Your task to perform on an android device: Open the calendar and show me this week's events? Image 0: 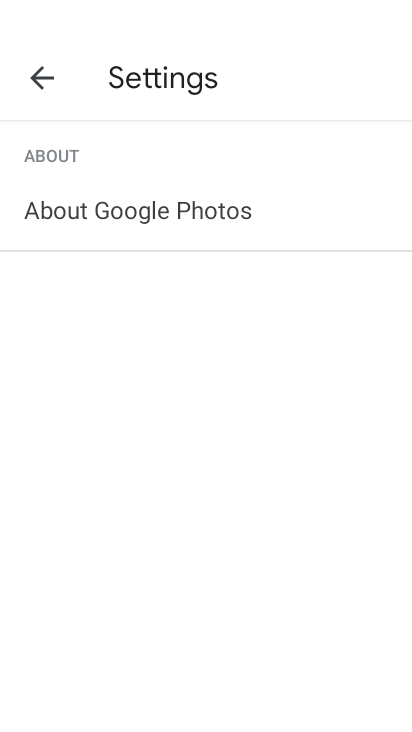
Step 0: press back button
Your task to perform on an android device: Open the calendar and show me this week's events? Image 1: 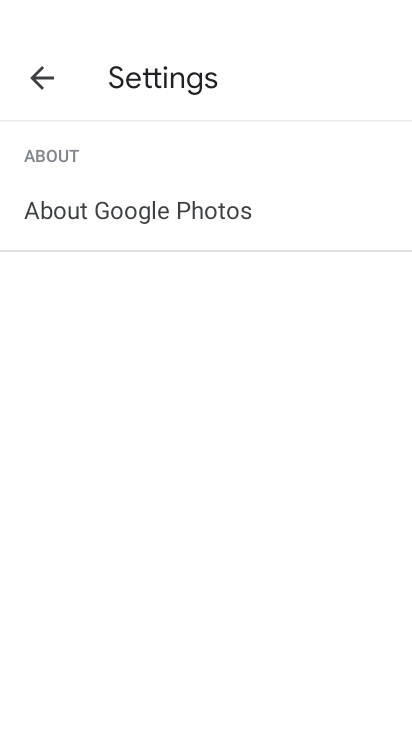
Step 1: press back button
Your task to perform on an android device: Open the calendar and show me this week's events? Image 2: 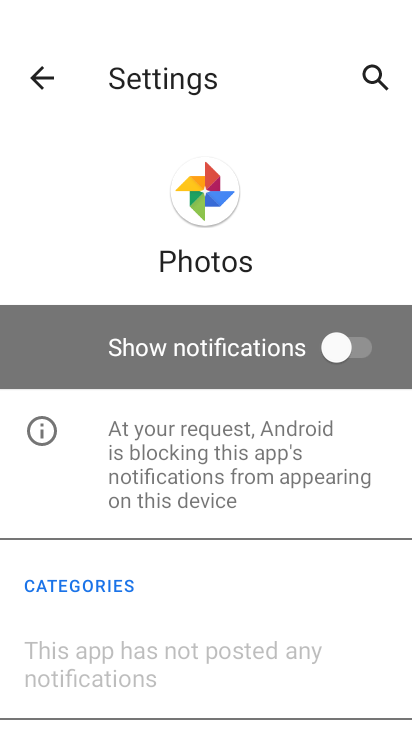
Step 2: press back button
Your task to perform on an android device: Open the calendar and show me this week's events? Image 3: 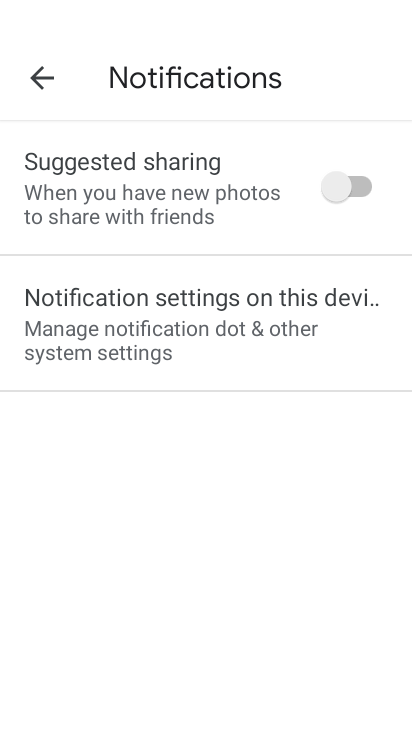
Step 3: press back button
Your task to perform on an android device: Open the calendar and show me this week's events? Image 4: 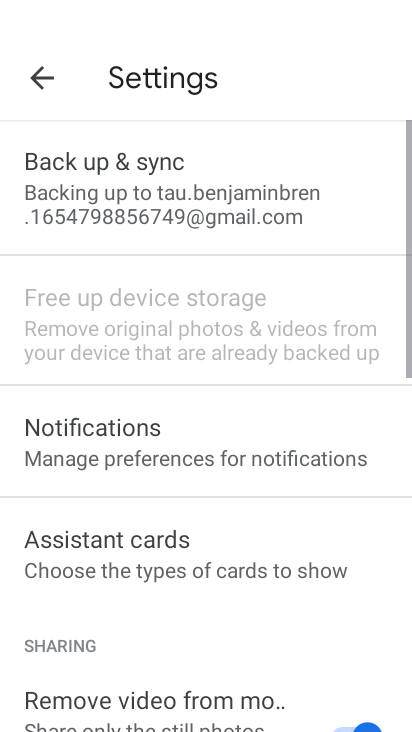
Step 4: press back button
Your task to perform on an android device: Open the calendar and show me this week's events? Image 5: 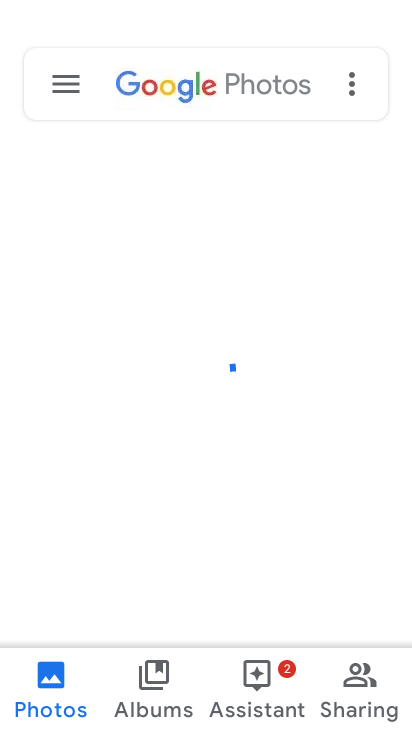
Step 5: press home button
Your task to perform on an android device: Open the calendar and show me this week's events? Image 6: 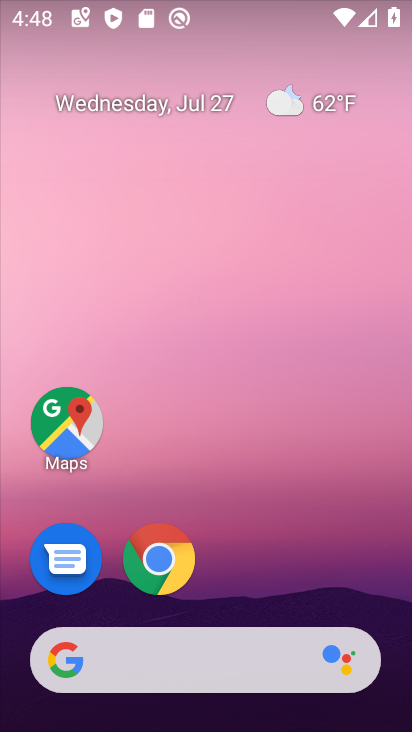
Step 6: drag from (241, 590) to (323, 87)
Your task to perform on an android device: Open the calendar and show me this week's events? Image 7: 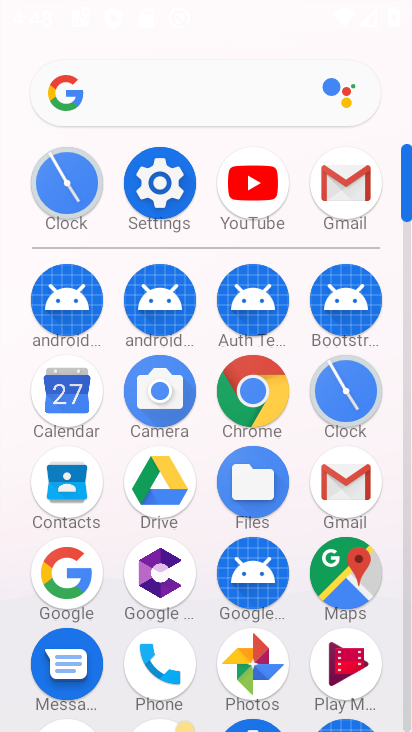
Step 7: click (61, 410)
Your task to perform on an android device: Open the calendar and show me this week's events? Image 8: 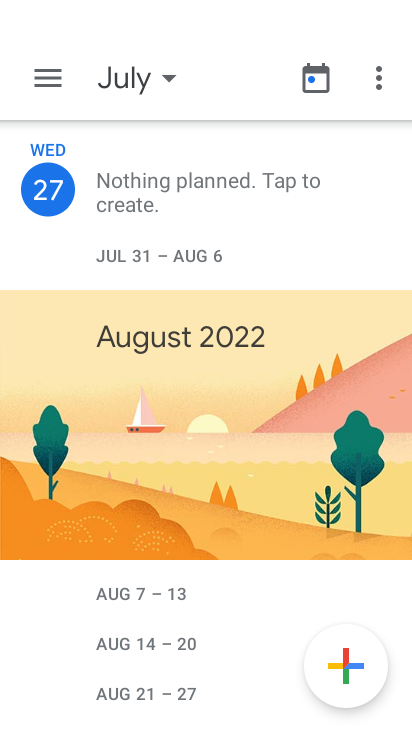
Step 8: click (163, 79)
Your task to perform on an android device: Open the calendar and show me this week's events? Image 9: 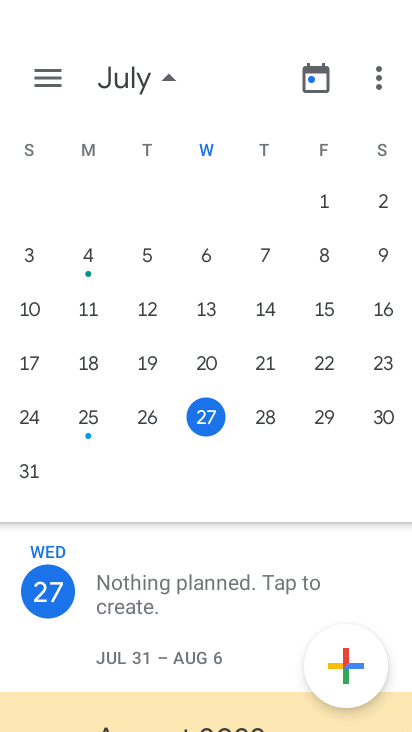
Step 9: drag from (385, 306) to (6, 306)
Your task to perform on an android device: Open the calendar and show me this week's events? Image 10: 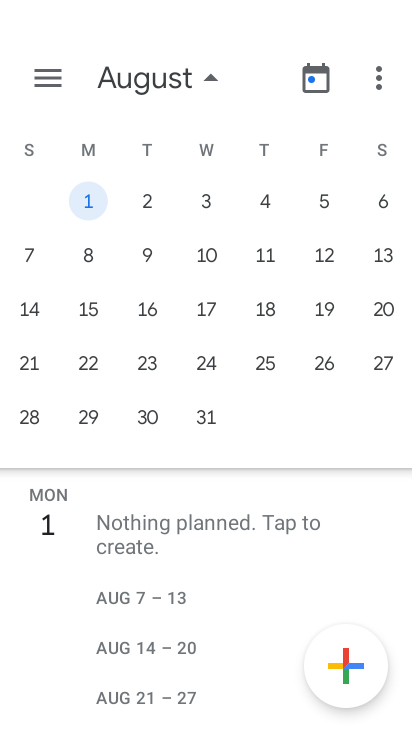
Step 10: drag from (20, 306) to (17, 358)
Your task to perform on an android device: Open the calendar and show me this week's events? Image 11: 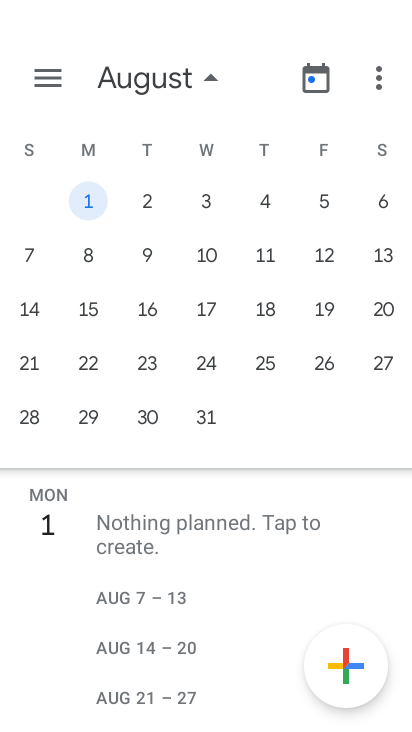
Step 11: drag from (33, 302) to (403, 310)
Your task to perform on an android device: Open the calendar and show me this week's events? Image 12: 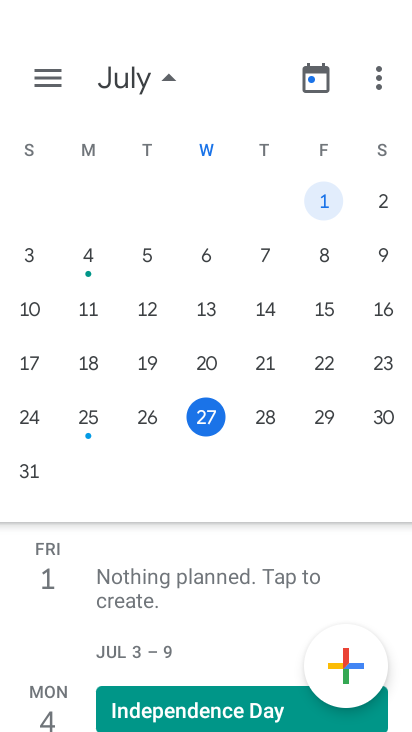
Step 12: click (200, 414)
Your task to perform on an android device: Open the calendar and show me this week's events? Image 13: 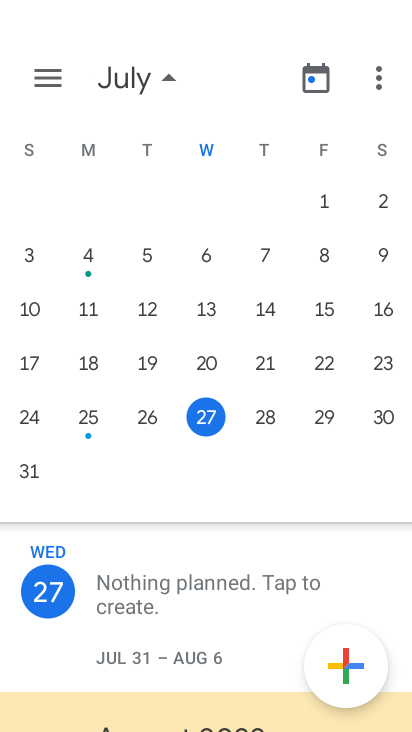
Step 13: task complete